Your task to perform on an android device: Add "macbook pro 15 inch" to the cart on walmart.com Image 0: 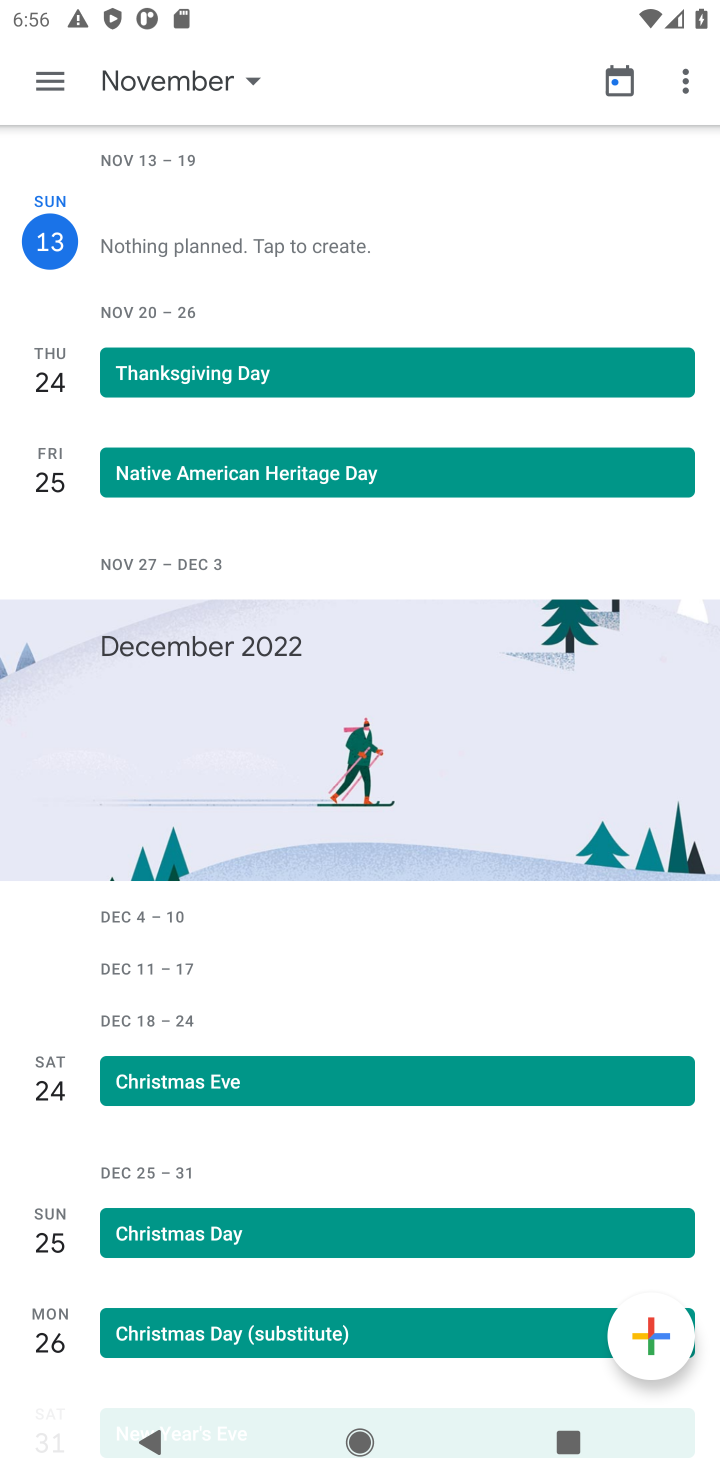
Step 0: press home button
Your task to perform on an android device: Add "macbook pro 15 inch" to the cart on walmart.com Image 1: 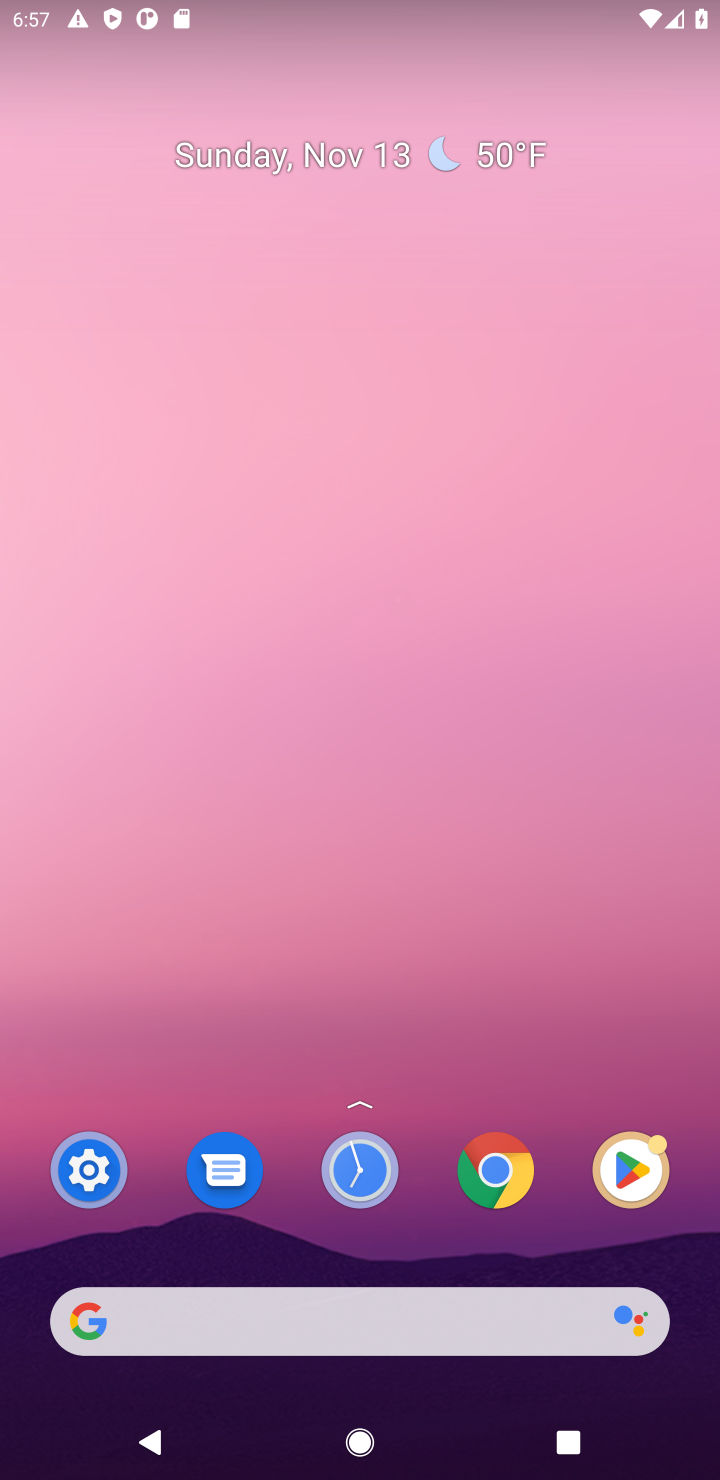
Step 1: click (220, 1296)
Your task to perform on an android device: Add "macbook pro 15 inch" to the cart on walmart.com Image 2: 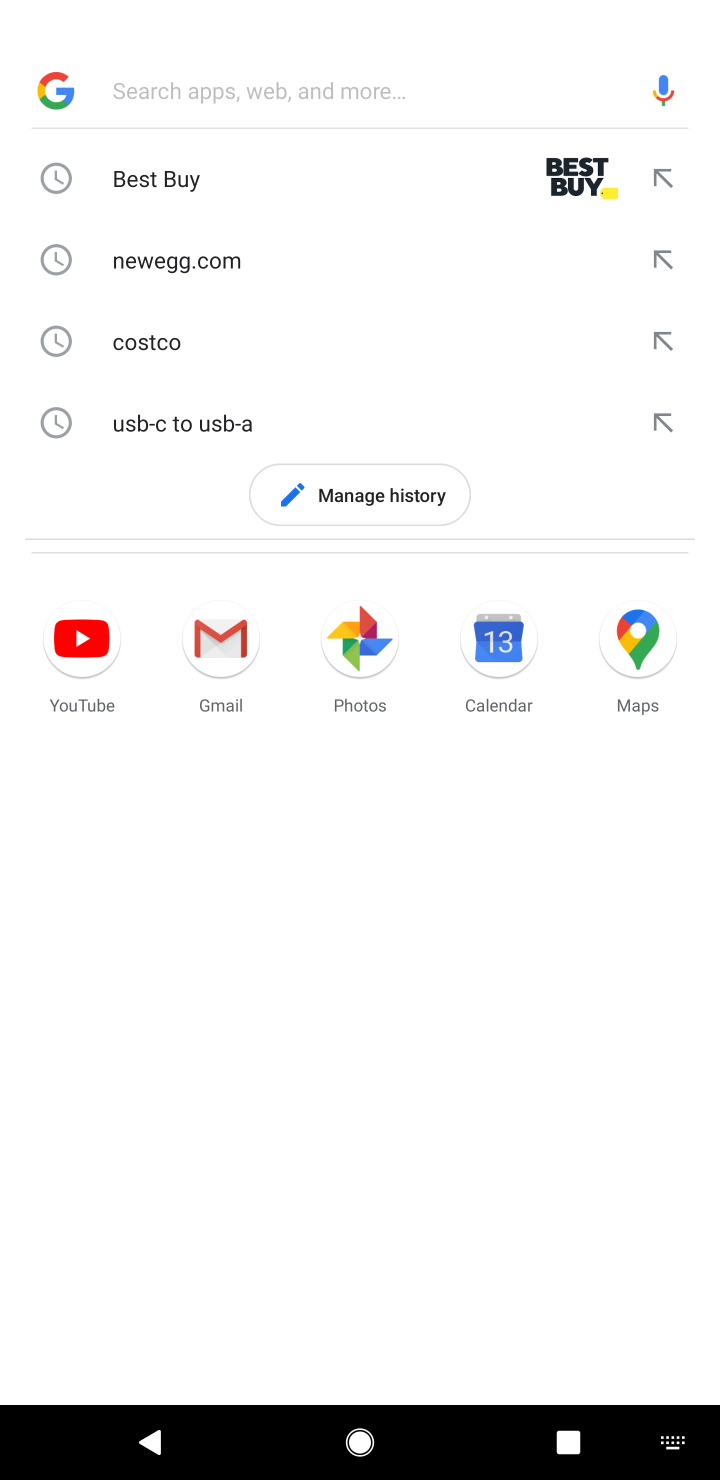
Step 2: type "walmart"
Your task to perform on an android device: Add "macbook pro 15 inch" to the cart on walmart.com Image 3: 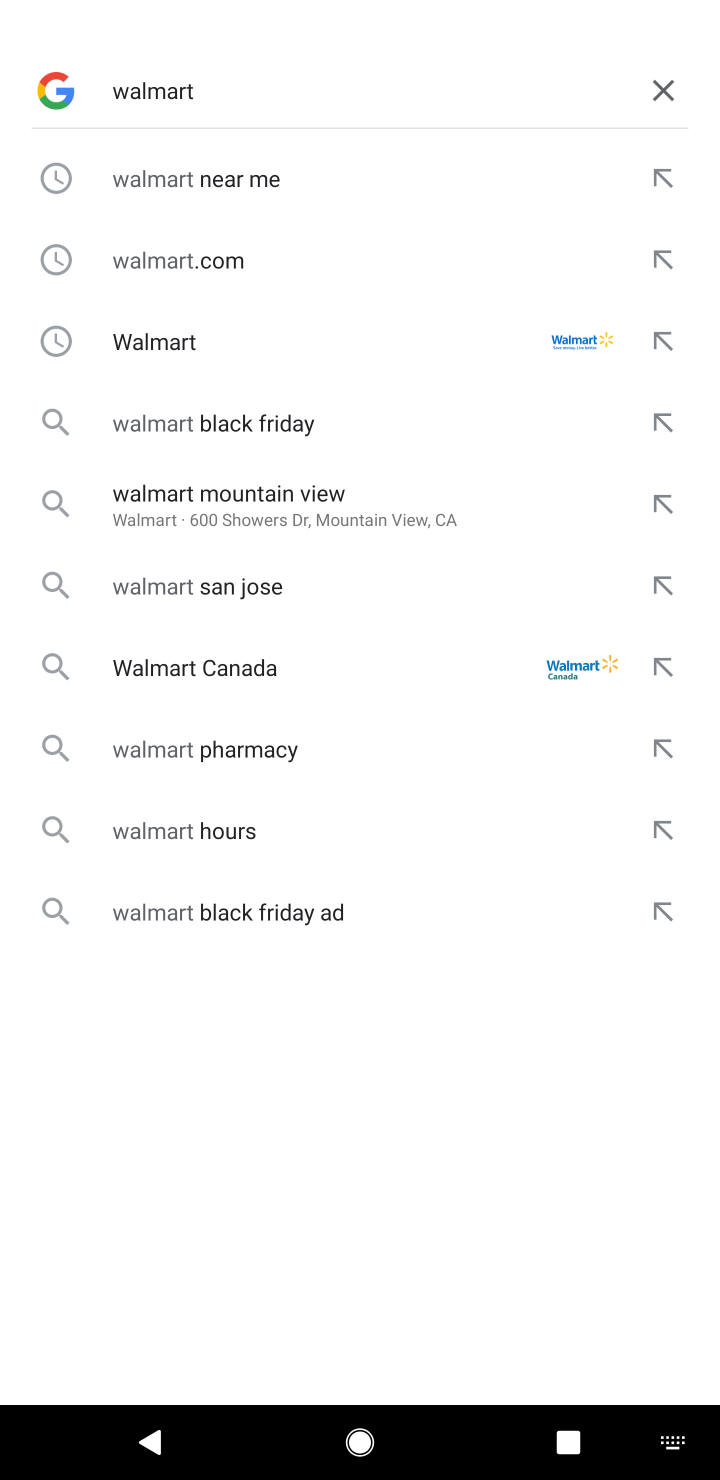
Step 3: click (234, 273)
Your task to perform on an android device: Add "macbook pro 15 inch" to the cart on walmart.com Image 4: 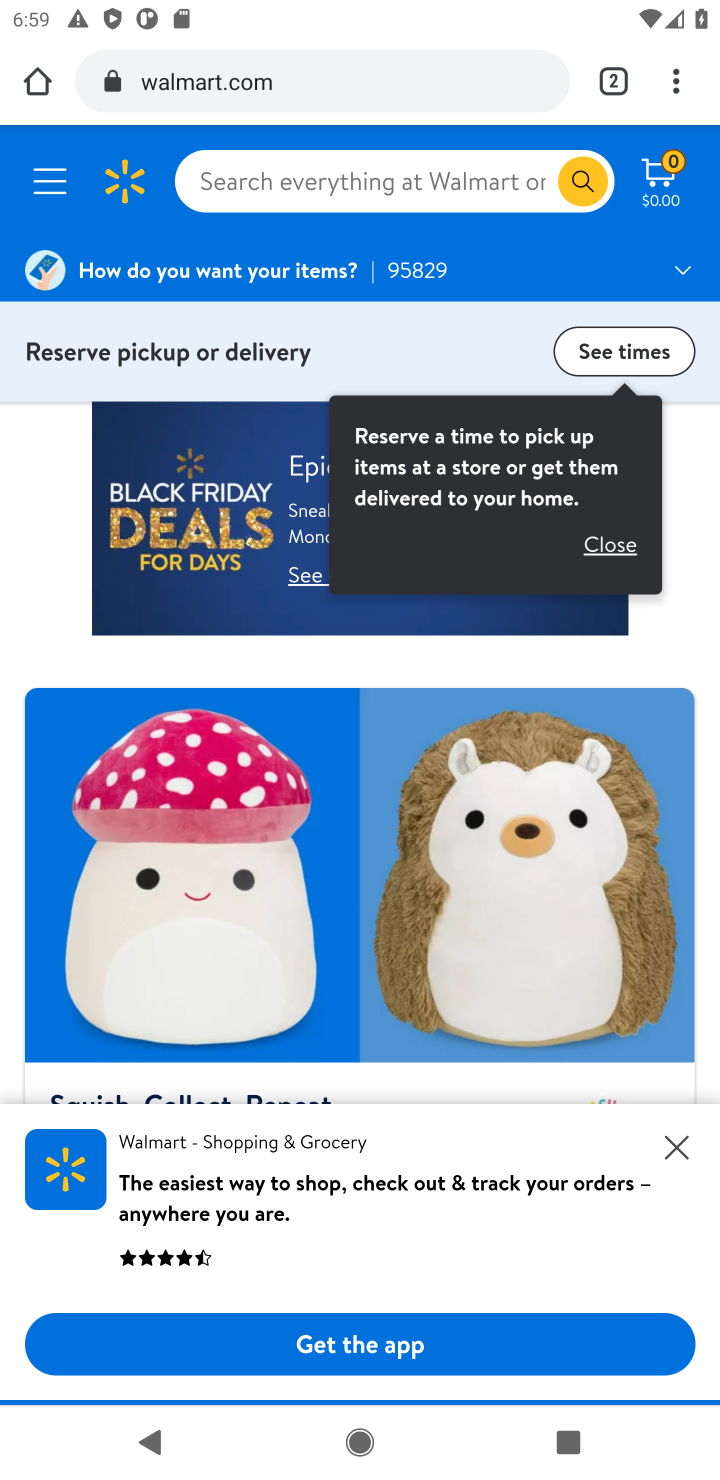
Step 4: click (386, 189)
Your task to perform on an android device: Add "macbook pro 15 inch" to the cart on walmart.com Image 5: 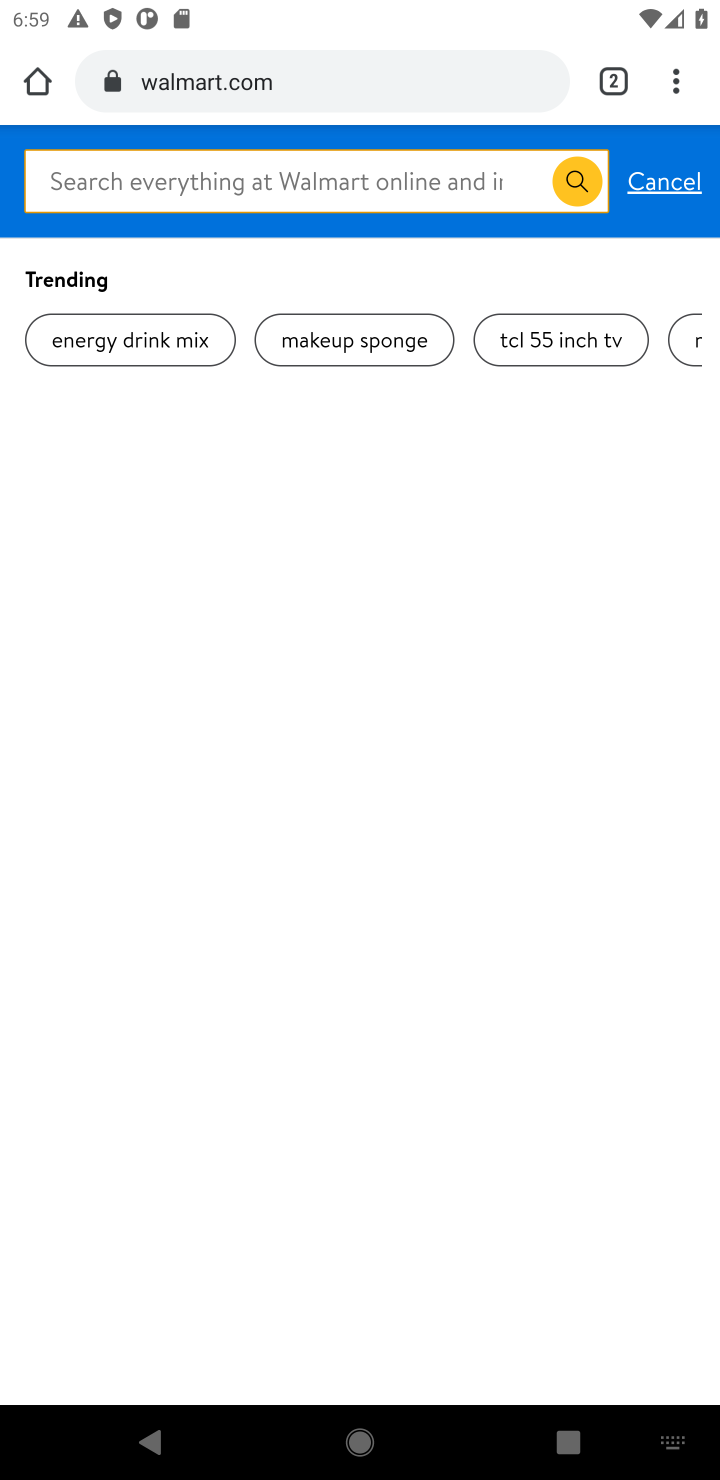
Step 5: type "macbook pro 15""
Your task to perform on an android device: Add "macbook pro 15 inch" to the cart on walmart.com Image 6: 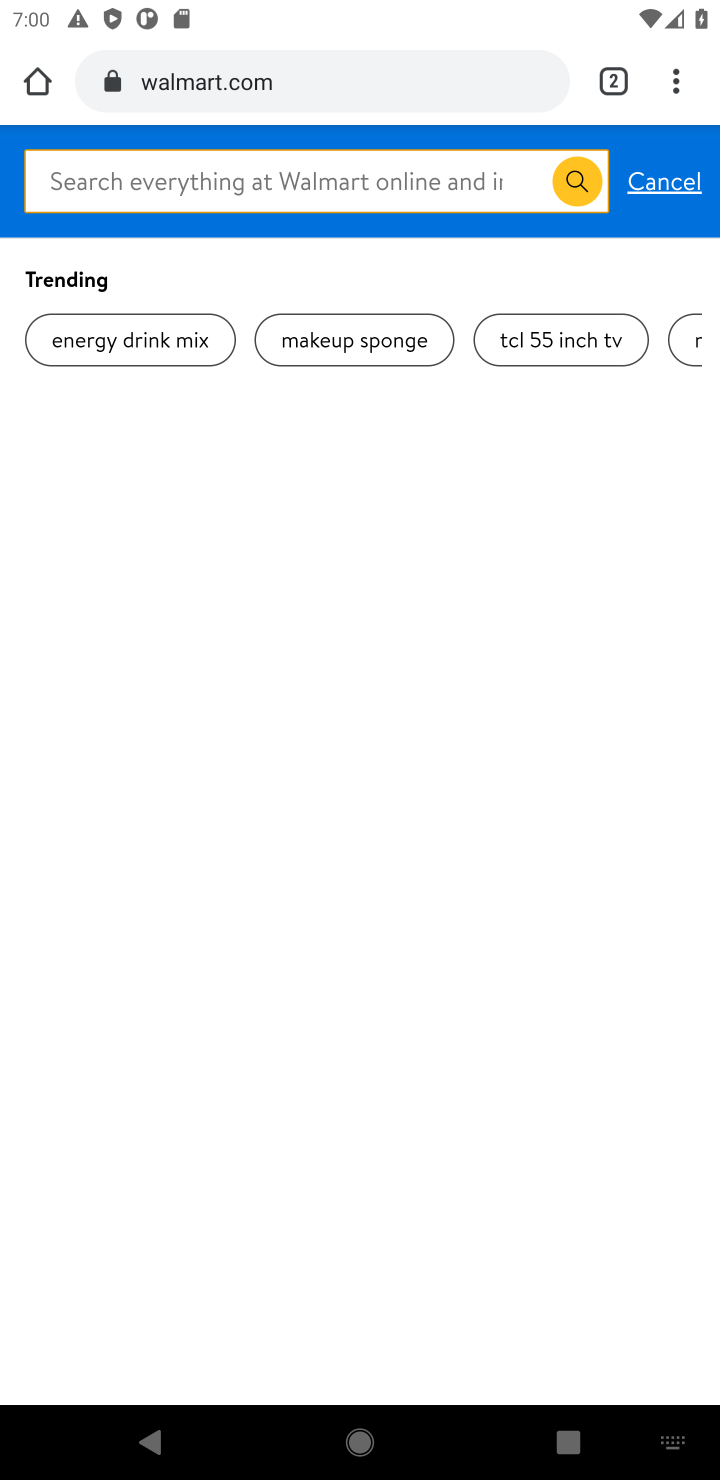
Step 6: task complete